Your task to perform on an android device: open wifi settings Image 0: 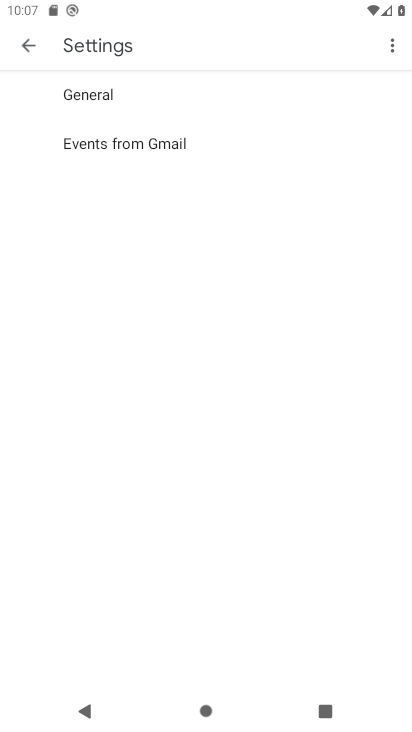
Step 0: press home button
Your task to perform on an android device: open wifi settings Image 1: 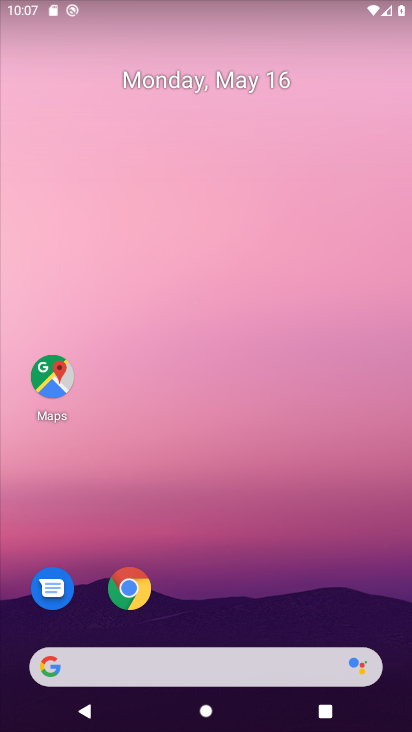
Step 1: drag from (205, 578) to (246, 57)
Your task to perform on an android device: open wifi settings Image 2: 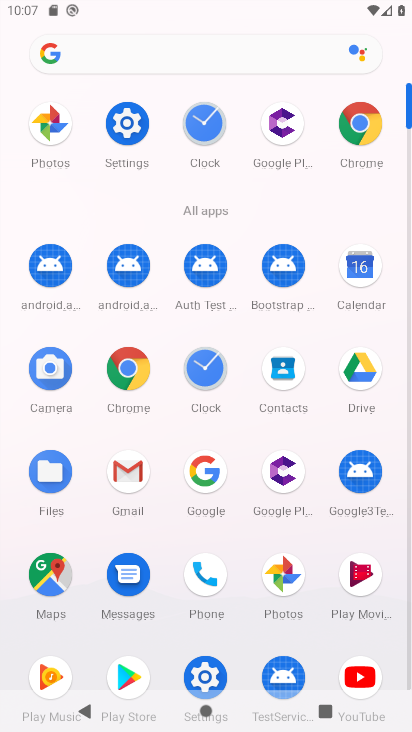
Step 2: click (125, 118)
Your task to perform on an android device: open wifi settings Image 3: 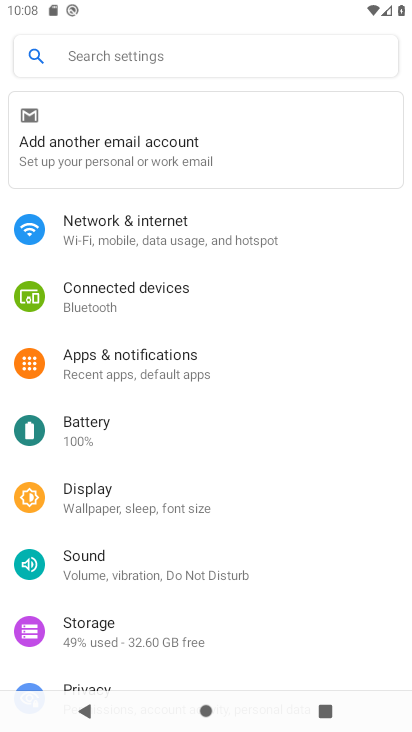
Step 3: click (203, 226)
Your task to perform on an android device: open wifi settings Image 4: 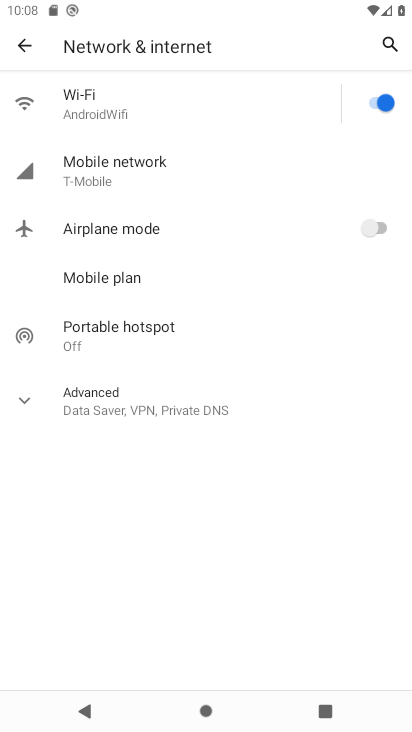
Step 4: click (176, 104)
Your task to perform on an android device: open wifi settings Image 5: 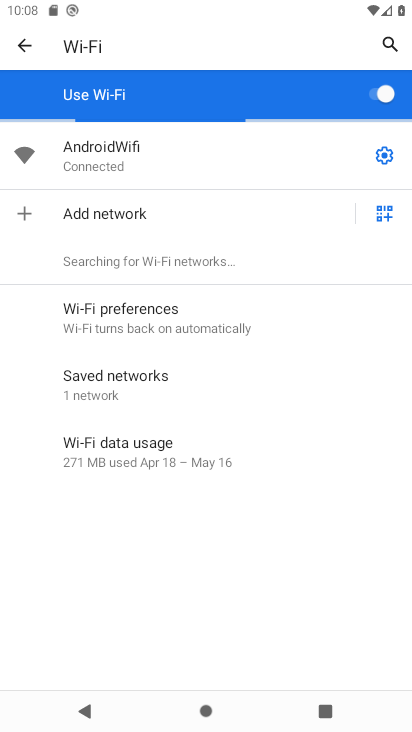
Step 5: task complete